Your task to perform on an android device: Go to wifi settings Image 0: 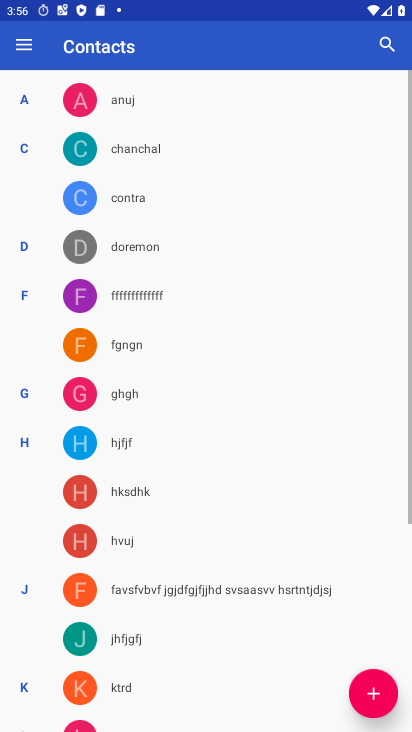
Step 0: press home button
Your task to perform on an android device: Go to wifi settings Image 1: 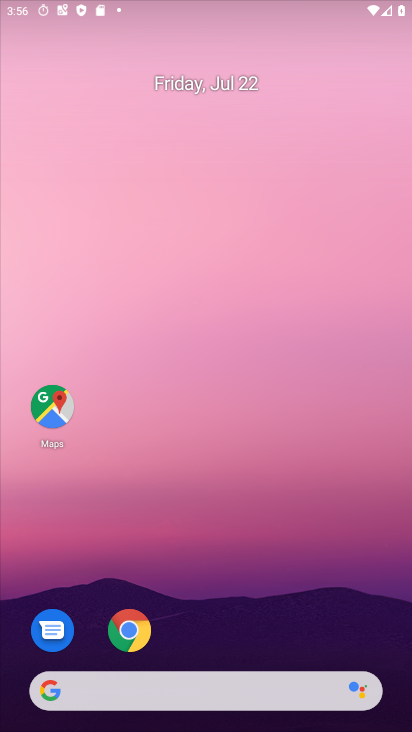
Step 1: drag from (236, 685) to (224, 0)
Your task to perform on an android device: Go to wifi settings Image 2: 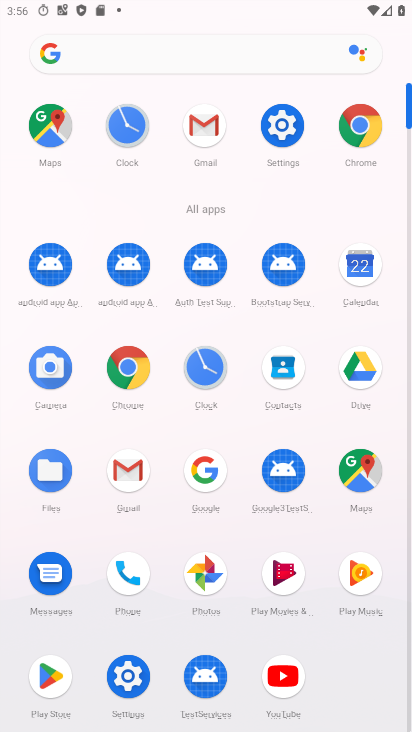
Step 2: click (297, 126)
Your task to perform on an android device: Go to wifi settings Image 3: 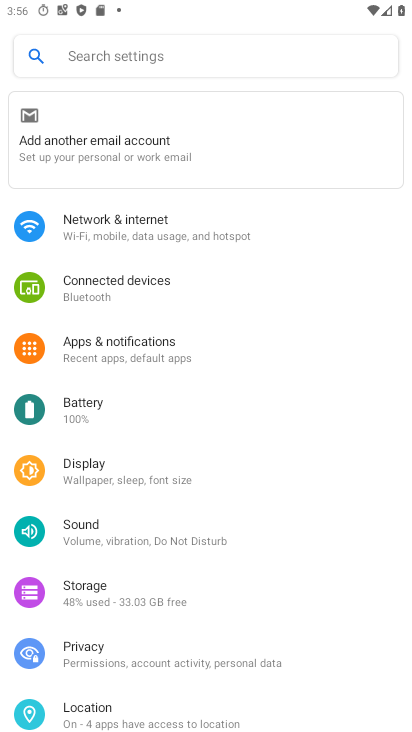
Step 3: click (124, 227)
Your task to perform on an android device: Go to wifi settings Image 4: 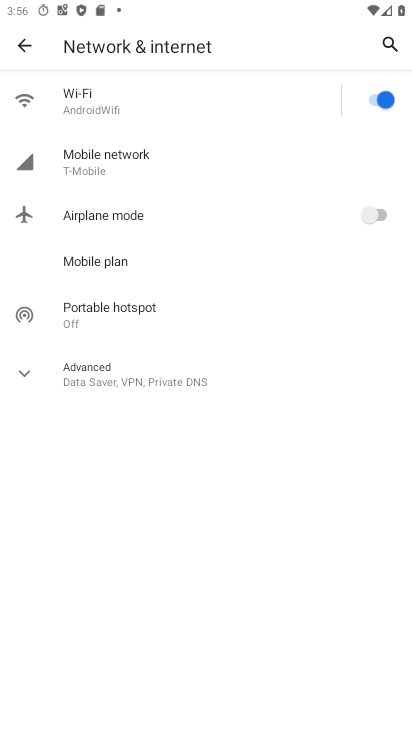
Step 4: task complete